Your task to perform on an android device: Set the phone to "Do not disturb". Image 0: 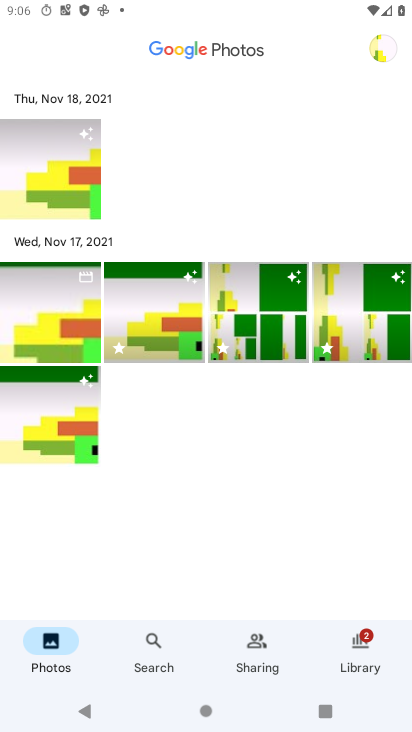
Step 0: click (327, 441)
Your task to perform on an android device: Set the phone to "Do not disturb". Image 1: 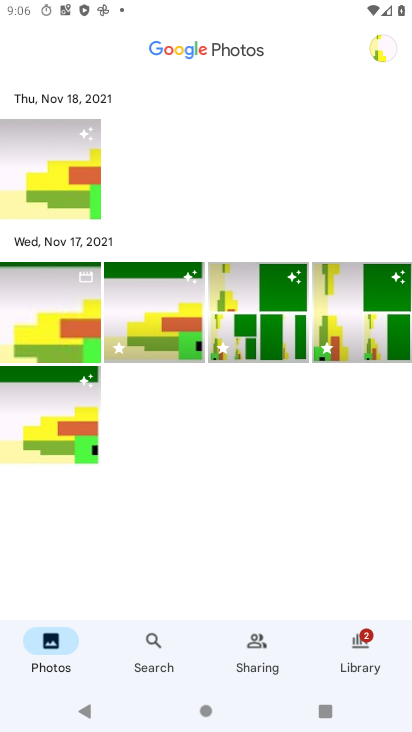
Step 1: press home button
Your task to perform on an android device: Set the phone to "Do not disturb". Image 2: 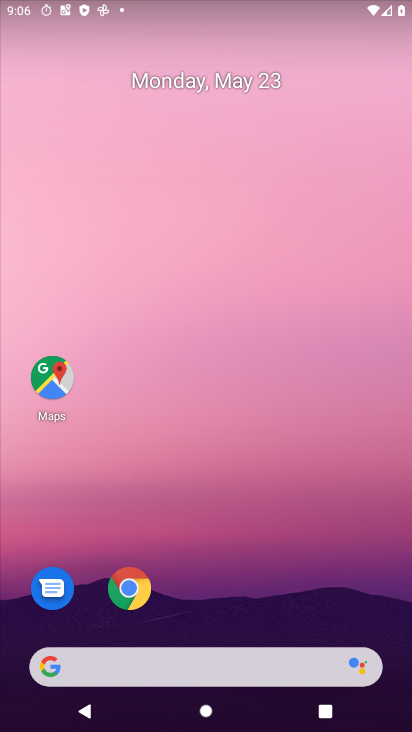
Step 2: drag from (387, 687) to (269, 38)
Your task to perform on an android device: Set the phone to "Do not disturb". Image 3: 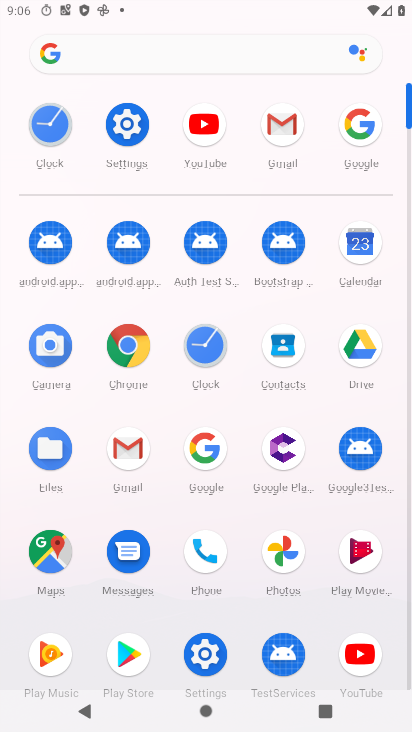
Step 3: click (126, 124)
Your task to perform on an android device: Set the phone to "Do not disturb". Image 4: 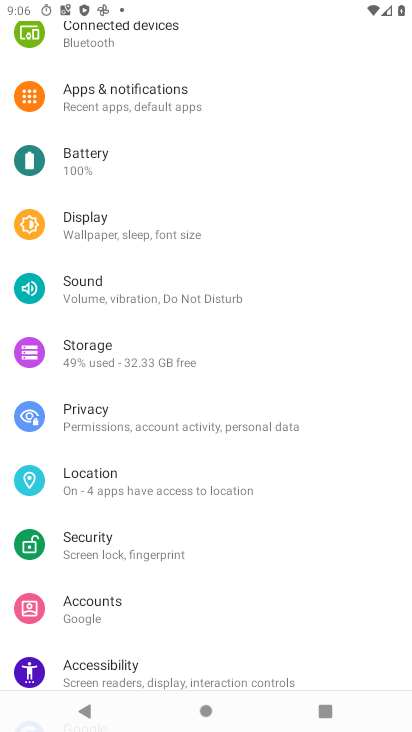
Step 4: click (94, 294)
Your task to perform on an android device: Set the phone to "Do not disturb". Image 5: 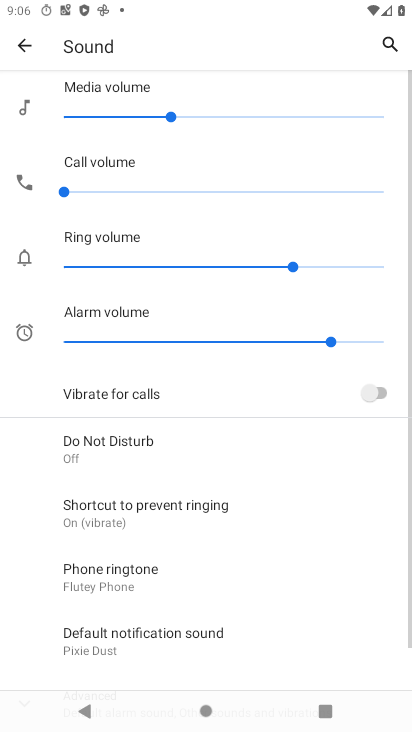
Step 5: click (72, 431)
Your task to perform on an android device: Set the phone to "Do not disturb". Image 6: 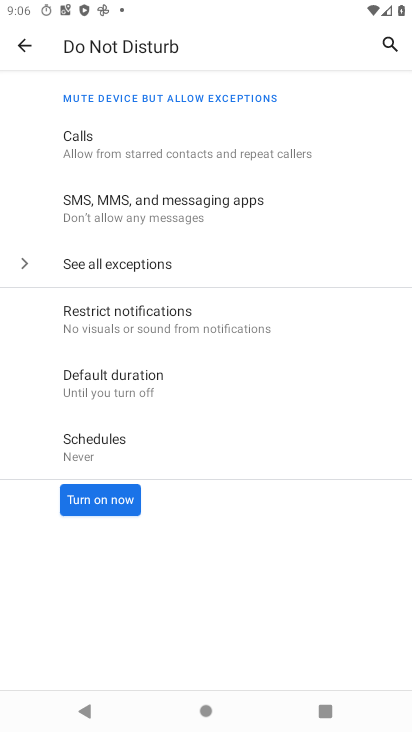
Step 6: click (87, 488)
Your task to perform on an android device: Set the phone to "Do not disturb". Image 7: 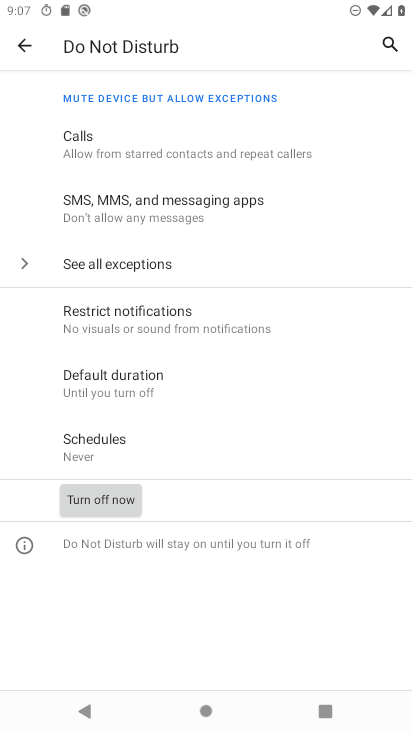
Step 7: click (23, 43)
Your task to perform on an android device: Set the phone to "Do not disturb". Image 8: 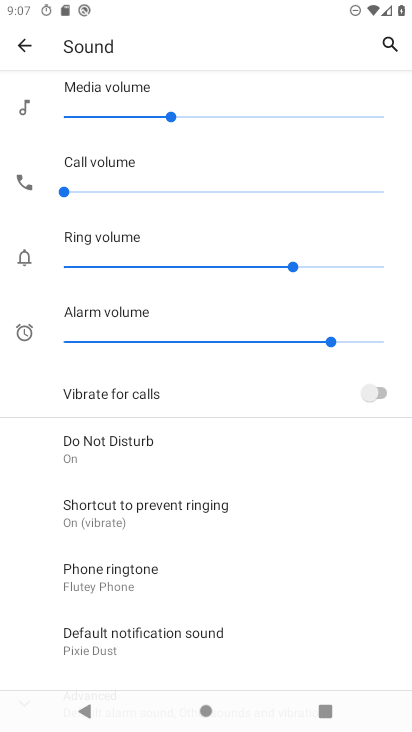
Step 8: task complete